Your task to perform on an android device: Open Wikipedia Image 0: 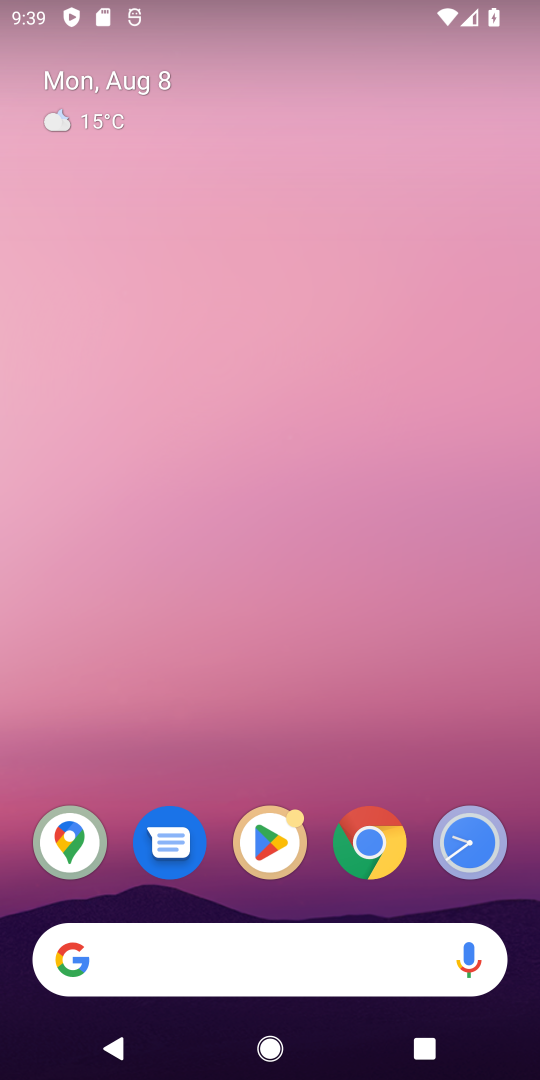
Step 0: click (361, 851)
Your task to perform on an android device: Open Wikipedia Image 1: 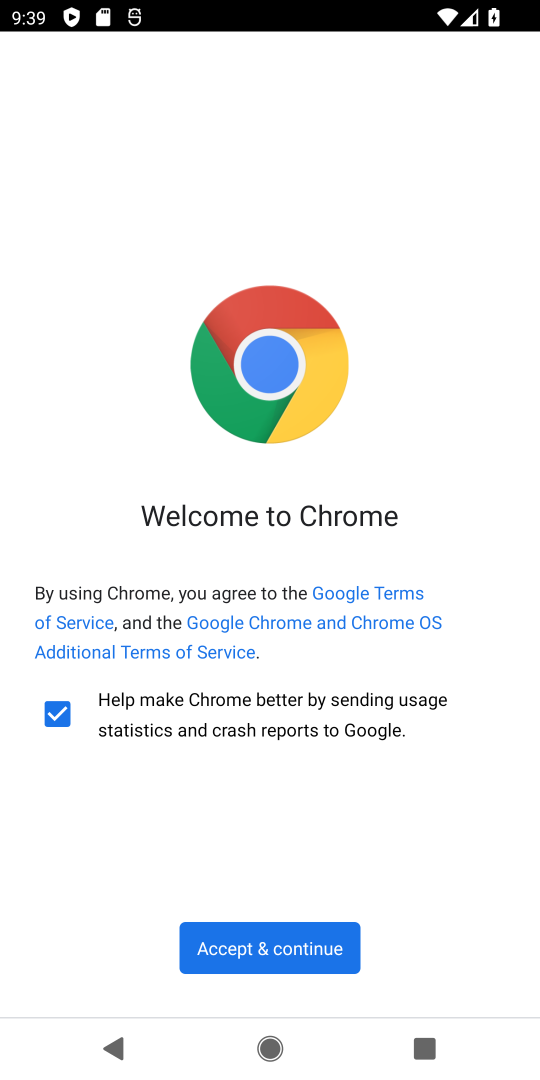
Step 1: click (334, 938)
Your task to perform on an android device: Open Wikipedia Image 2: 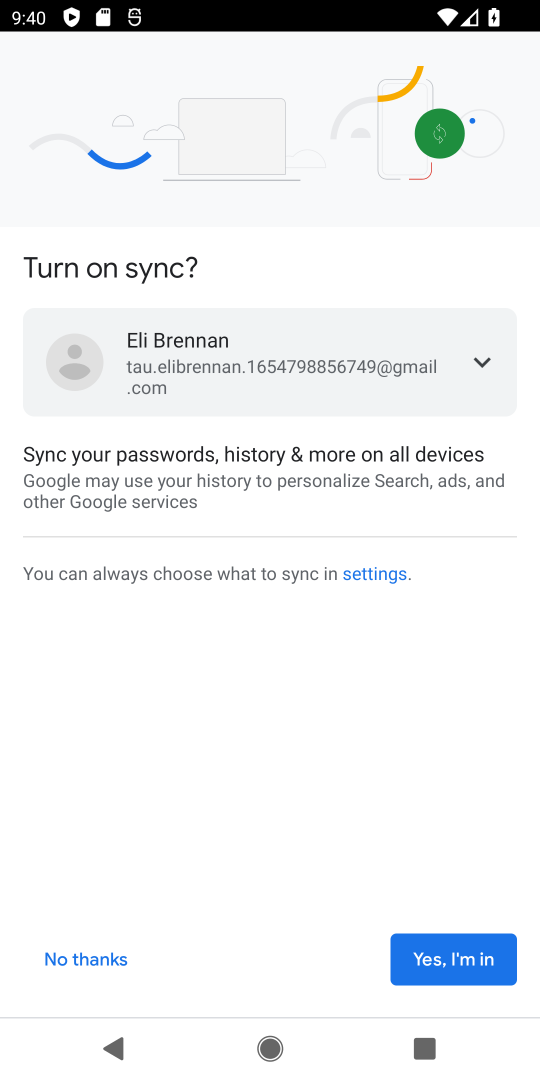
Step 2: click (407, 952)
Your task to perform on an android device: Open Wikipedia Image 3: 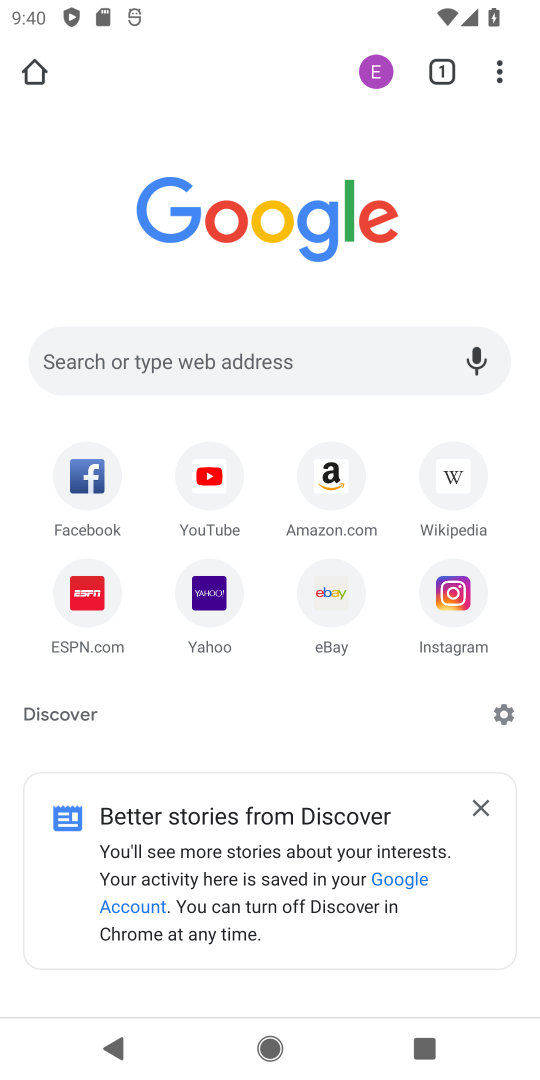
Step 3: click (456, 461)
Your task to perform on an android device: Open Wikipedia Image 4: 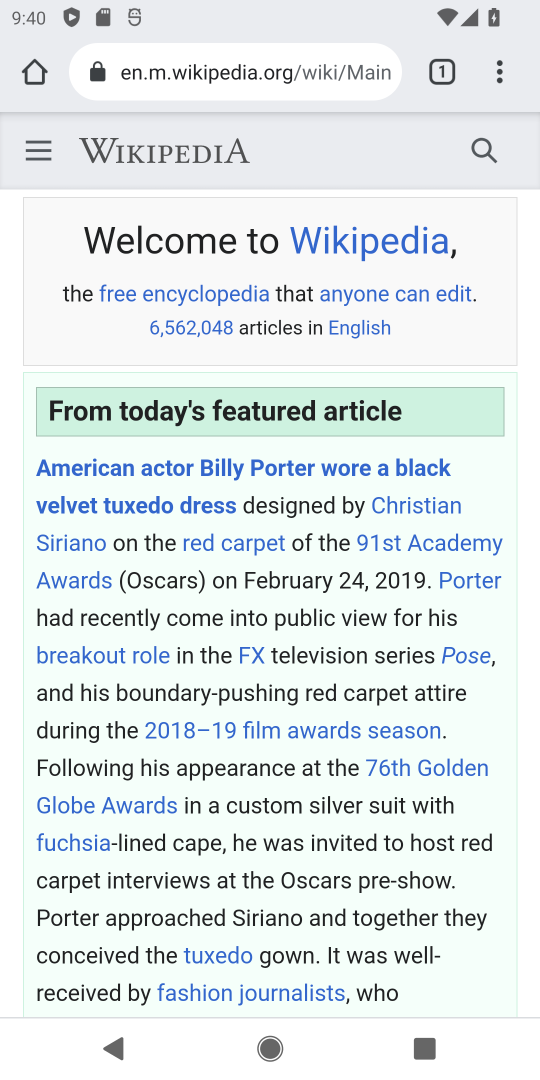
Step 4: task complete